Your task to perform on an android device: install app "Microsoft Authenticator" Image 0: 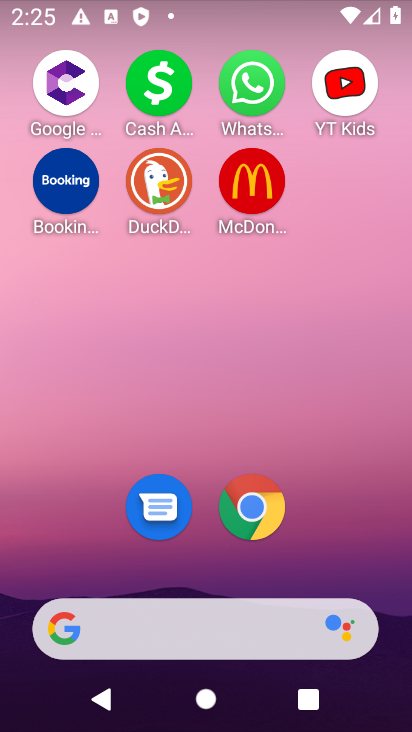
Step 0: drag from (196, 558) to (167, 16)
Your task to perform on an android device: install app "Microsoft Authenticator" Image 1: 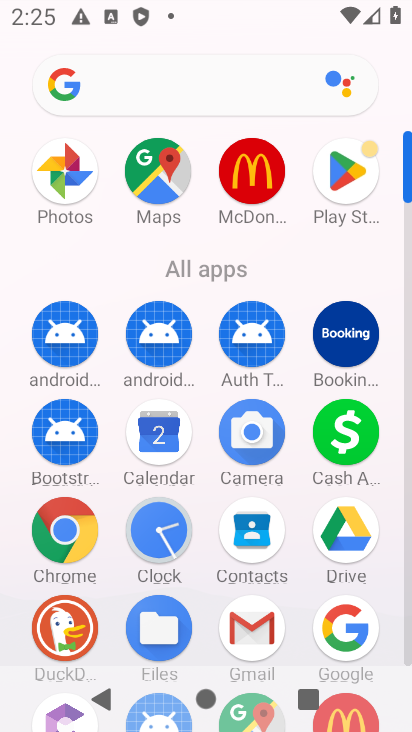
Step 1: click (352, 184)
Your task to perform on an android device: install app "Microsoft Authenticator" Image 2: 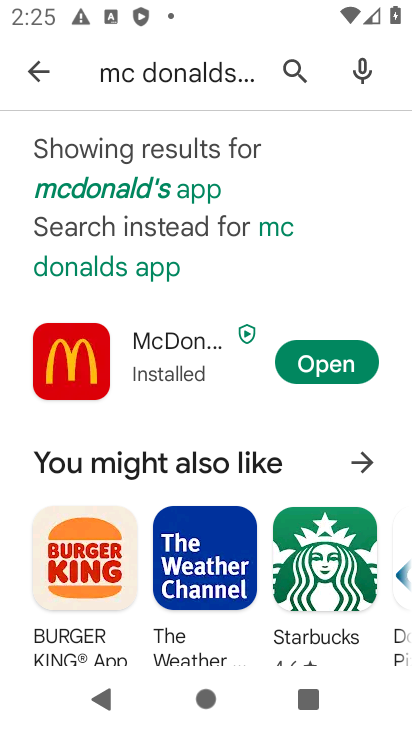
Step 2: click (185, 75)
Your task to perform on an android device: install app "Microsoft Authenticator" Image 3: 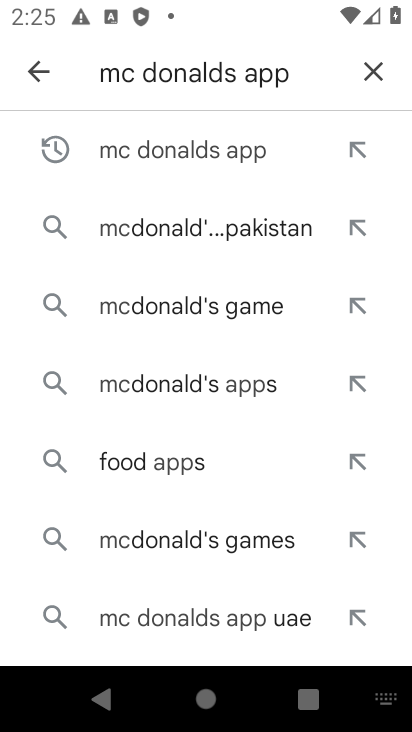
Step 3: click (363, 64)
Your task to perform on an android device: install app "Microsoft Authenticator" Image 4: 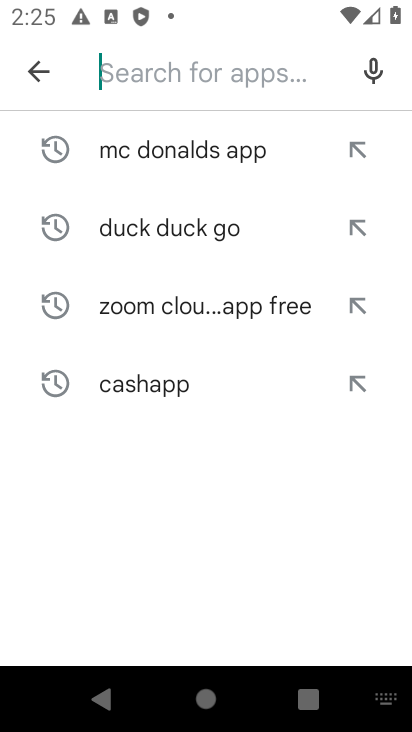
Step 4: type ""
Your task to perform on an android device: install app "Microsoft Authenticator" Image 5: 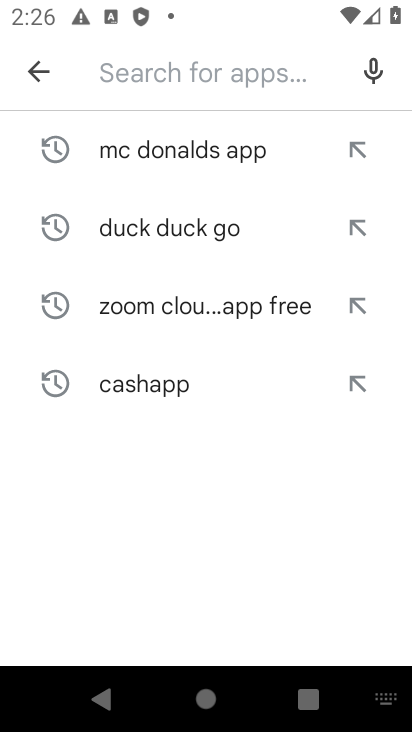
Step 5: type "microsoft authenticator"
Your task to perform on an android device: install app "Microsoft Authenticator" Image 6: 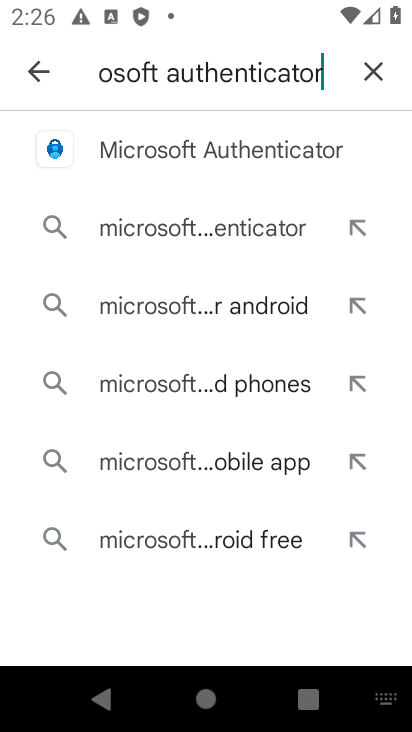
Step 6: click (144, 149)
Your task to perform on an android device: install app "Microsoft Authenticator" Image 7: 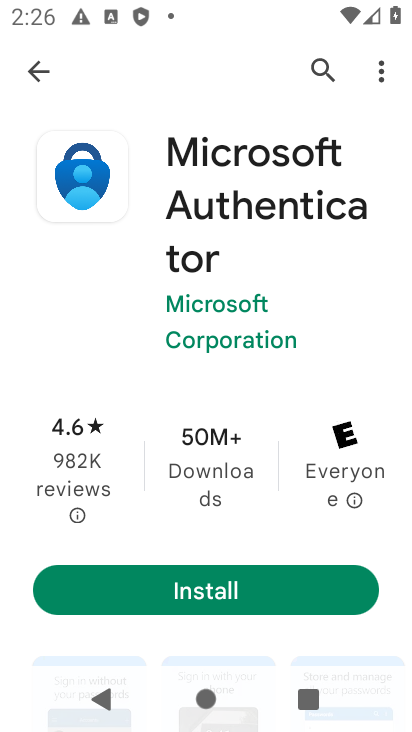
Step 7: click (137, 569)
Your task to perform on an android device: install app "Microsoft Authenticator" Image 8: 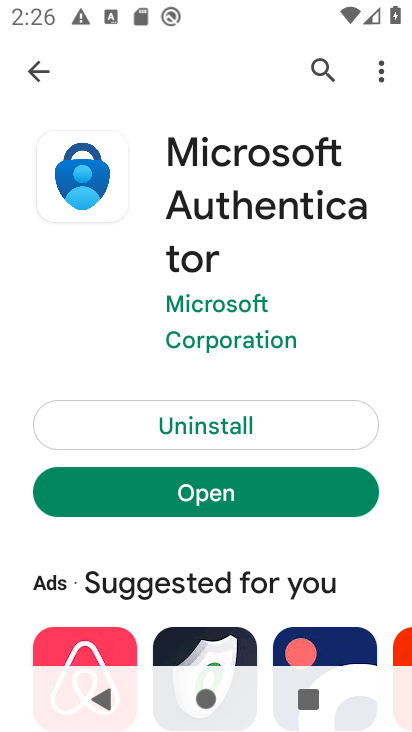
Step 8: task complete